Your task to perform on an android device: Open battery settings Image 0: 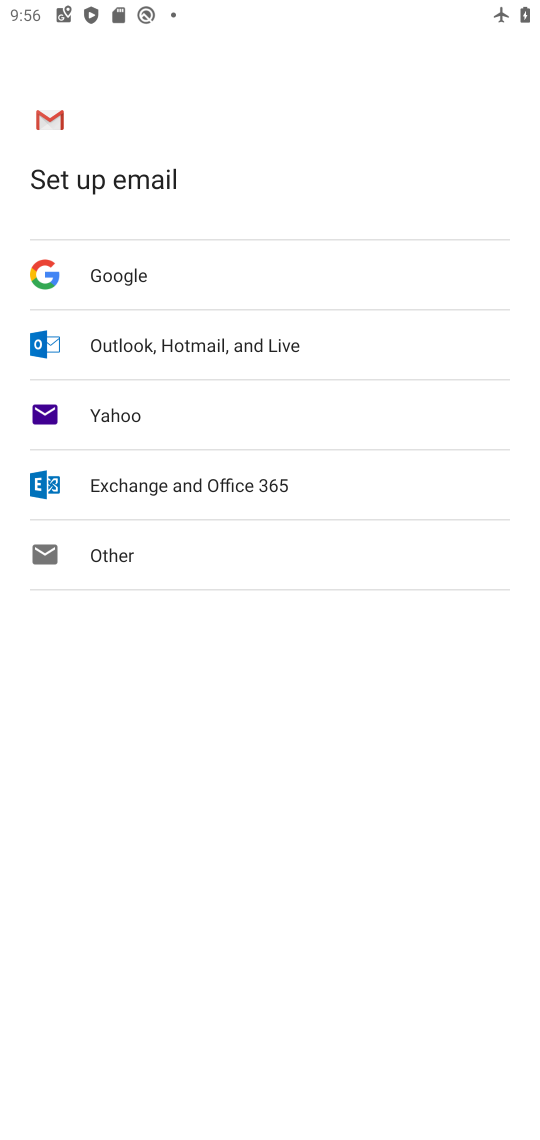
Step 0: press home button
Your task to perform on an android device: Open battery settings Image 1: 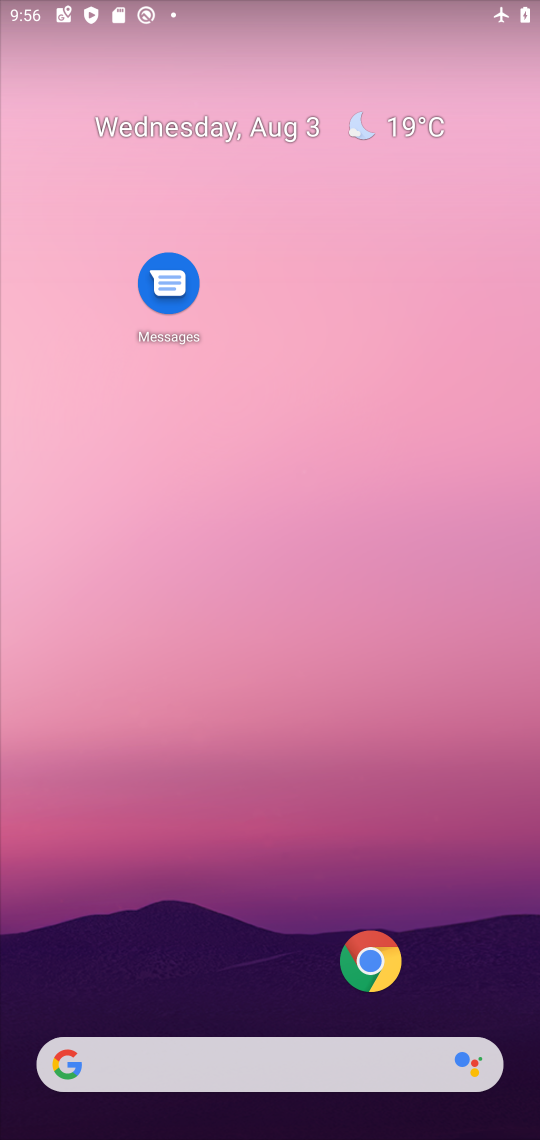
Step 1: drag from (320, 1012) to (250, 58)
Your task to perform on an android device: Open battery settings Image 2: 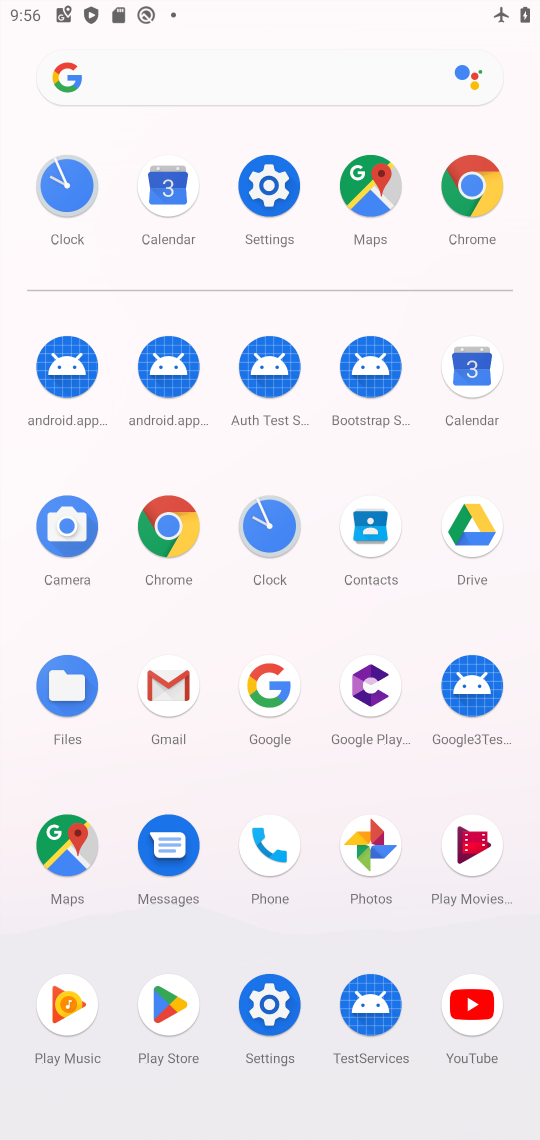
Step 2: click (286, 214)
Your task to perform on an android device: Open battery settings Image 3: 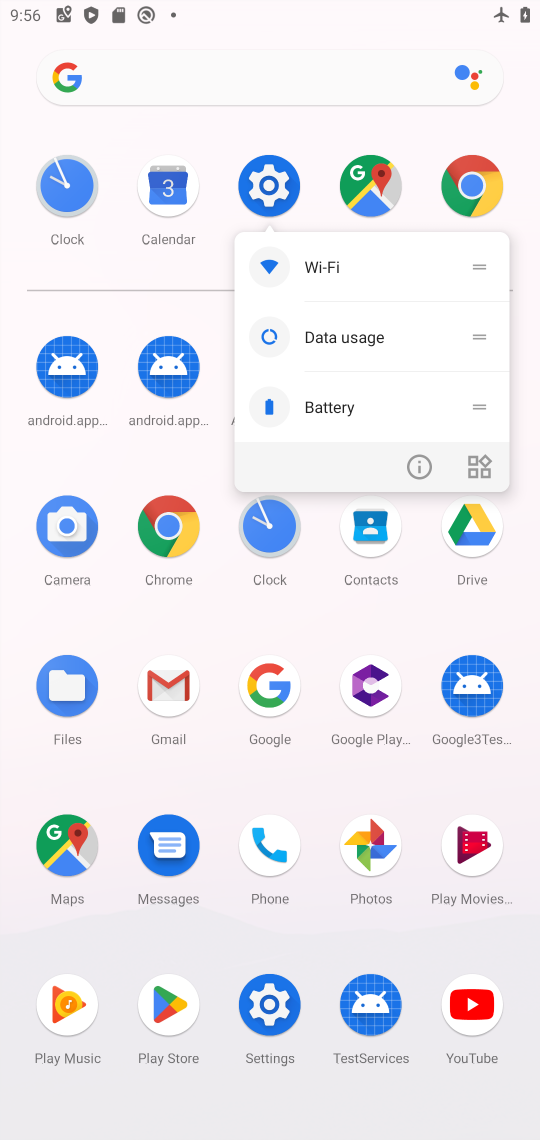
Step 3: click (268, 195)
Your task to perform on an android device: Open battery settings Image 4: 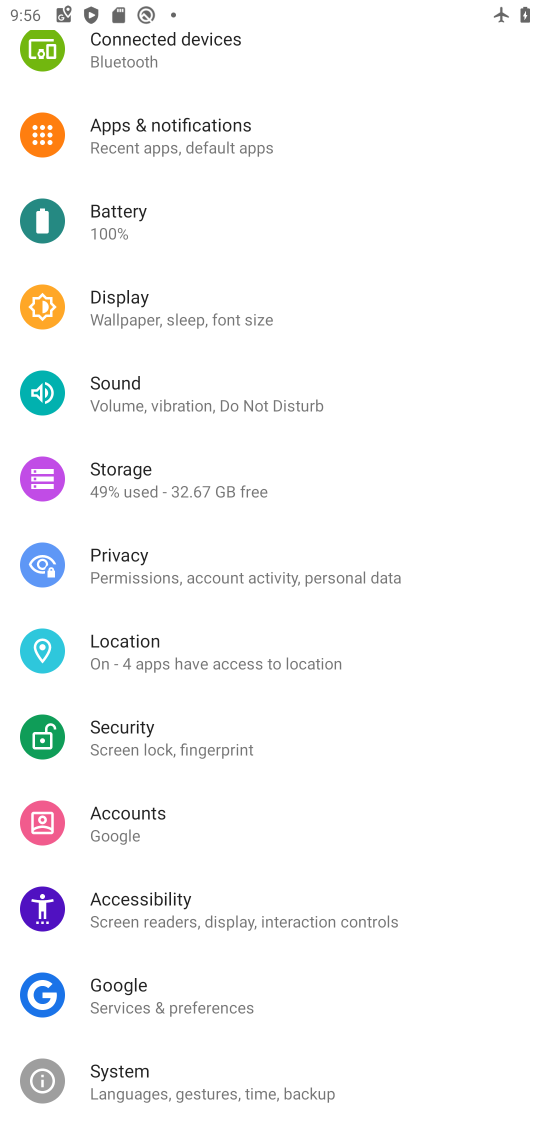
Step 4: click (75, 223)
Your task to perform on an android device: Open battery settings Image 5: 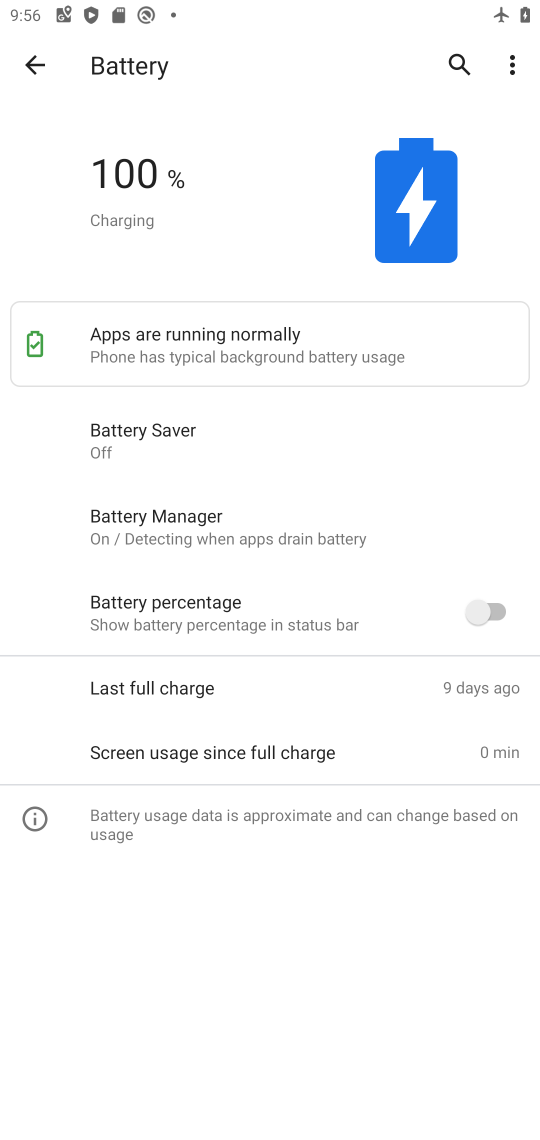
Step 5: task complete